Your task to perform on an android device: add a label to a message in the gmail app Image 0: 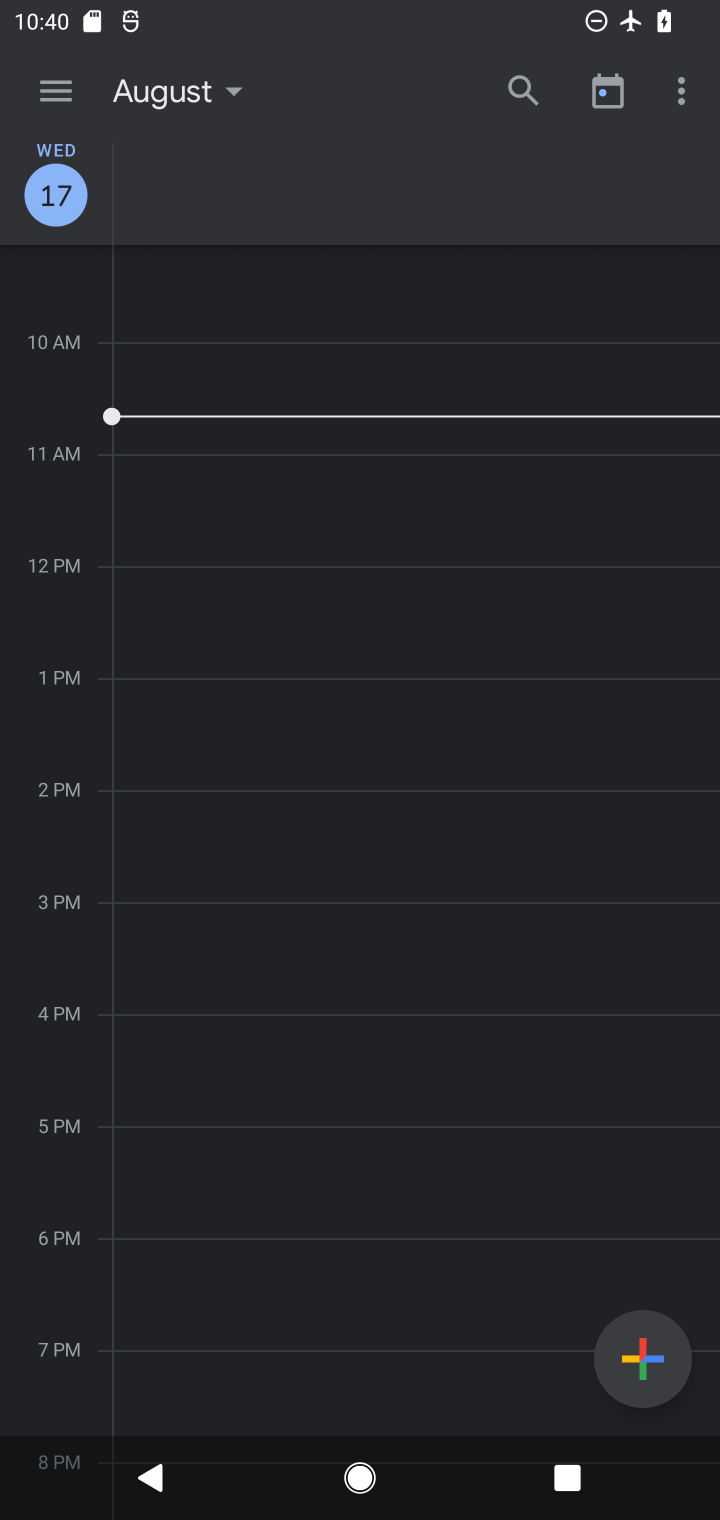
Step 0: task complete